Your task to perform on an android device: Open eBay Image 0: 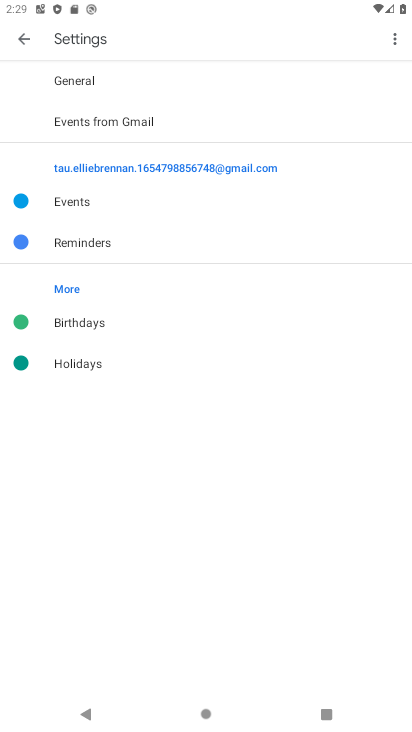
Step 0: press home button
Your task to perform on an android device: Open eBay Image 1: 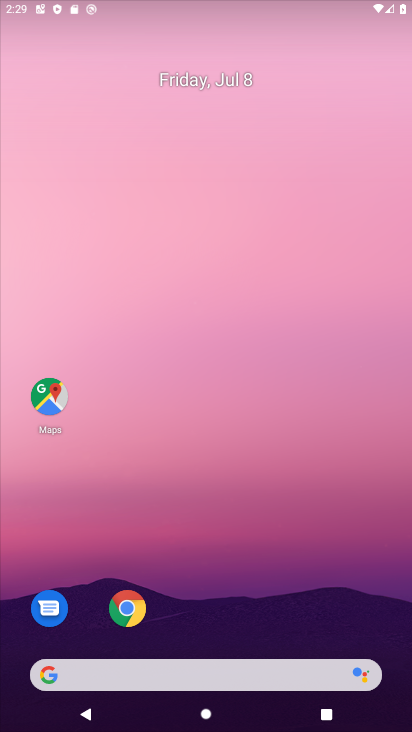
Step 1: drag from (334, 501) to (397, 58)
Your task to perform on an android device: Open eBay Image 2: 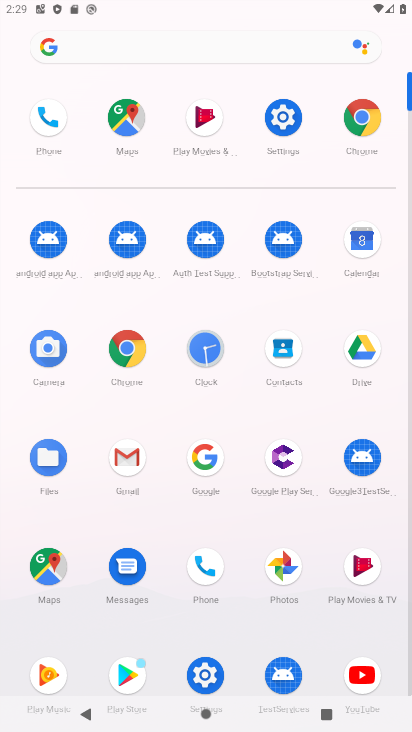
Step 2: click (133, 347)
Your task to perform on an android device: Open eBay Image 3: 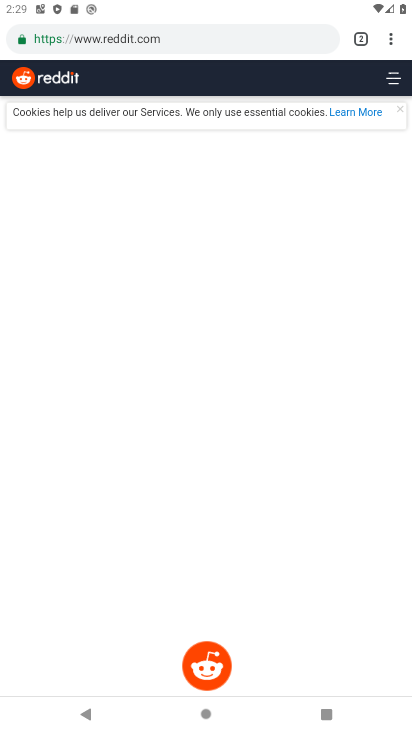
Step 3: press back button
Your task to perform on an android device: Open eBay Image 4: 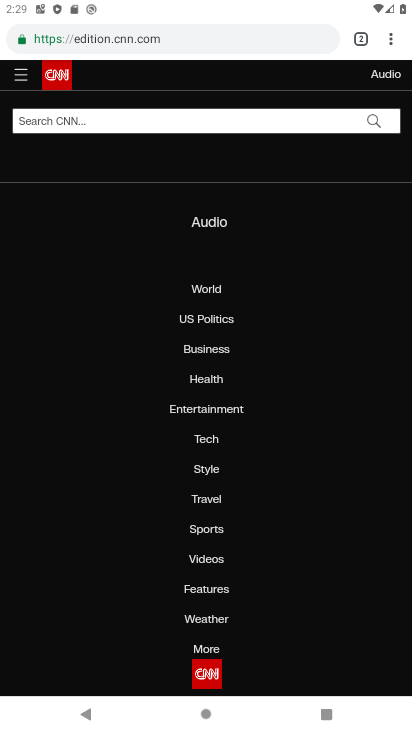
Step 4: drag from (386, 35) to (244, 81)
Your task to perform on an android device: Open eBay Image 5: 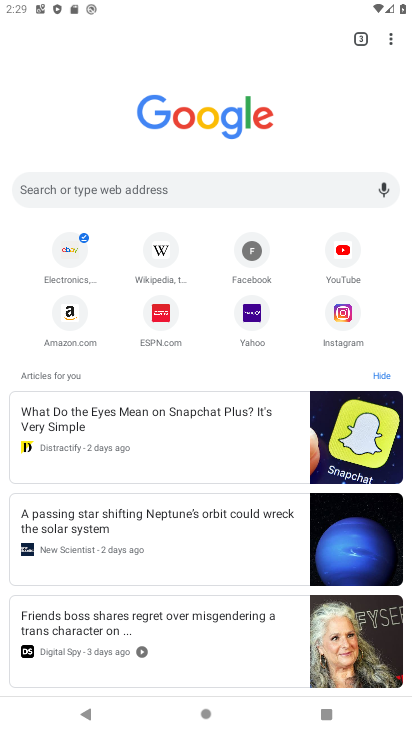
Step 5: click (79, 255)
Your task to perform on an android device: Open eBay Image 6: 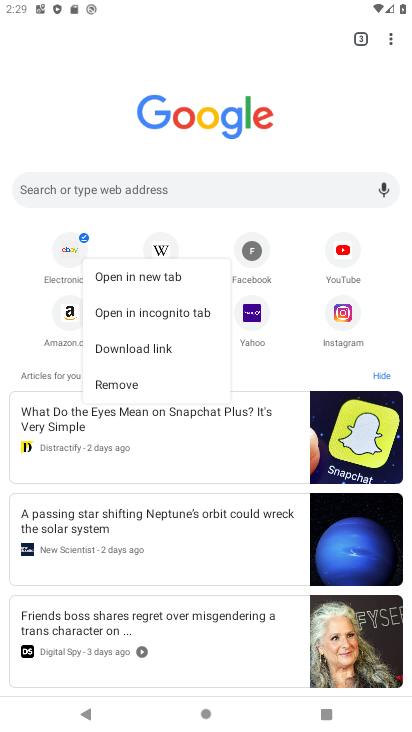
Step 6: click (69, 241)
Your task to perform on an android device: Open eBay Image 7: 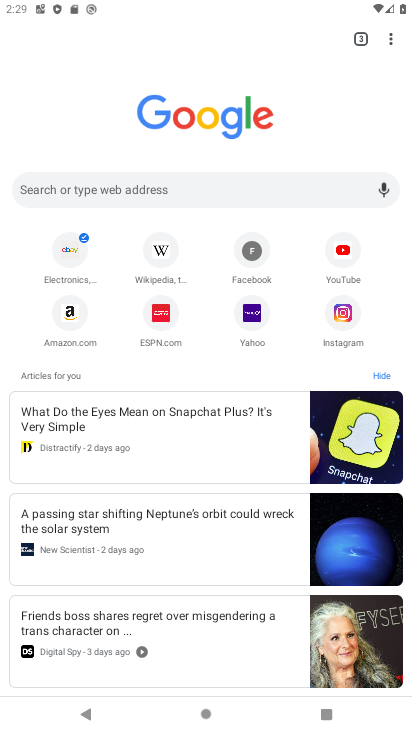
Step 7: click (57, 248)
Your task to perform on an android device: Open eBay Image 8: 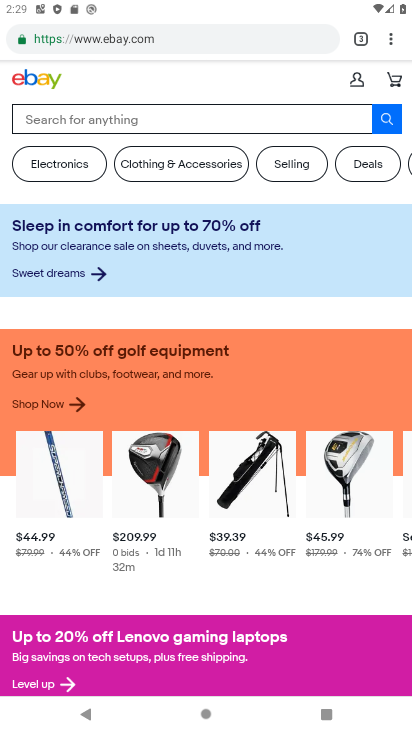
Step 8: task complete